Your task to perform on an android device: Go to notification settings Image 0: 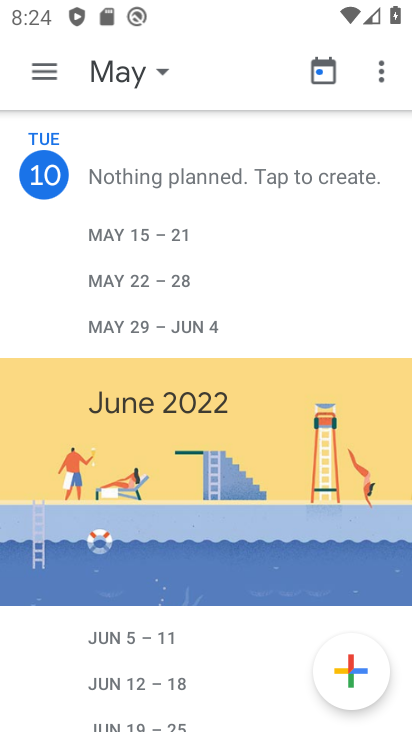
Step 0: press home button
Your task to perform on an android device: Go to notification settings Image 1: 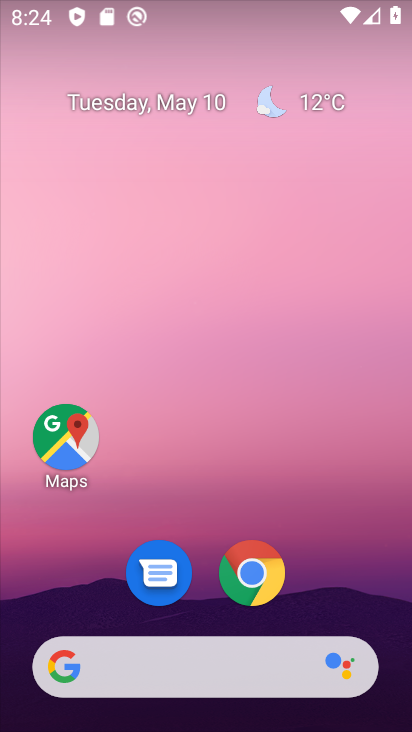
Step 1: drag from (203, 602) to (278, 209)
Your task to perform on an android device: Go to notification settings Image 2: 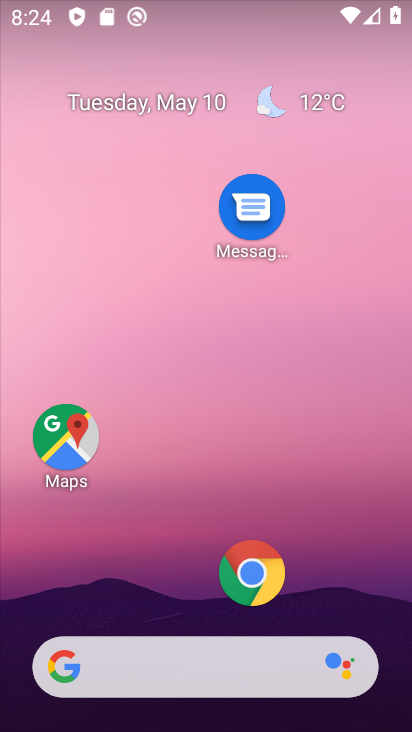
Step 2: drag from (184, 591) to (231, 115)
Your task to perform on an android device: Go to notification settings Image 3: 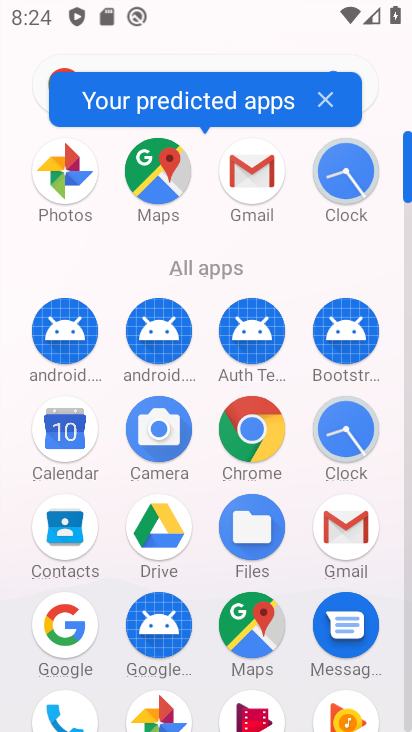
Step 3: drag from (204, 567) to (239, 134)
Your task to perform on an android device: Go to notification settings Image 4: 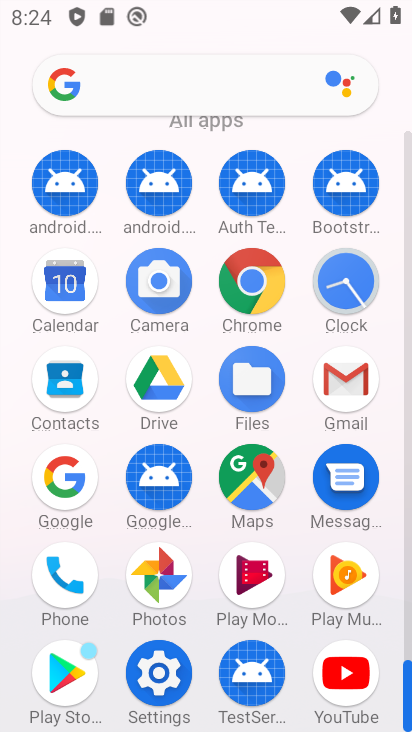
Step 4: click (159, 674)
Your task to perform on an android device: Go to notification settings Image 5: 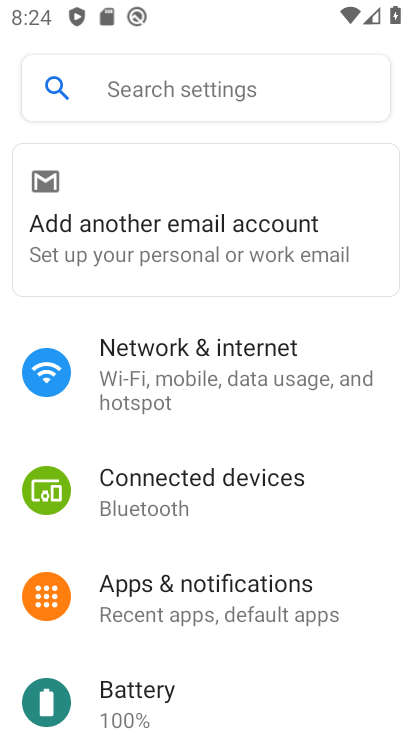
Step 5: click (197, 597)
Your task to perform on an android device: Go to notification settings Image 6: 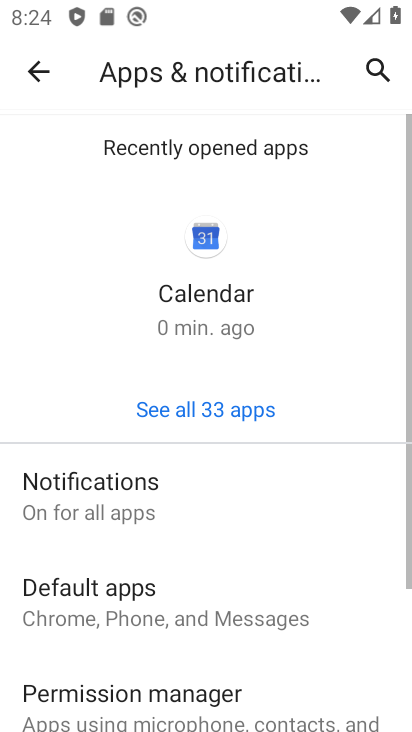
Step 6: click (100, 511)
Your task to perform on an android device: Go to notification settings Image 7: 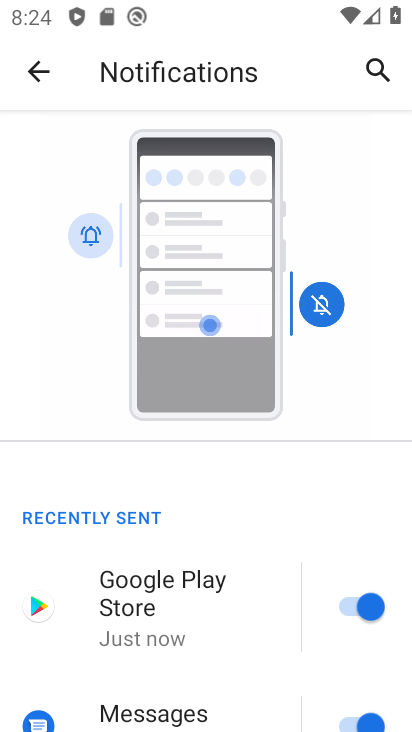
Step 7: task complete